Your task to perform on an android device: open app "Fetch Rewards" Image 0: 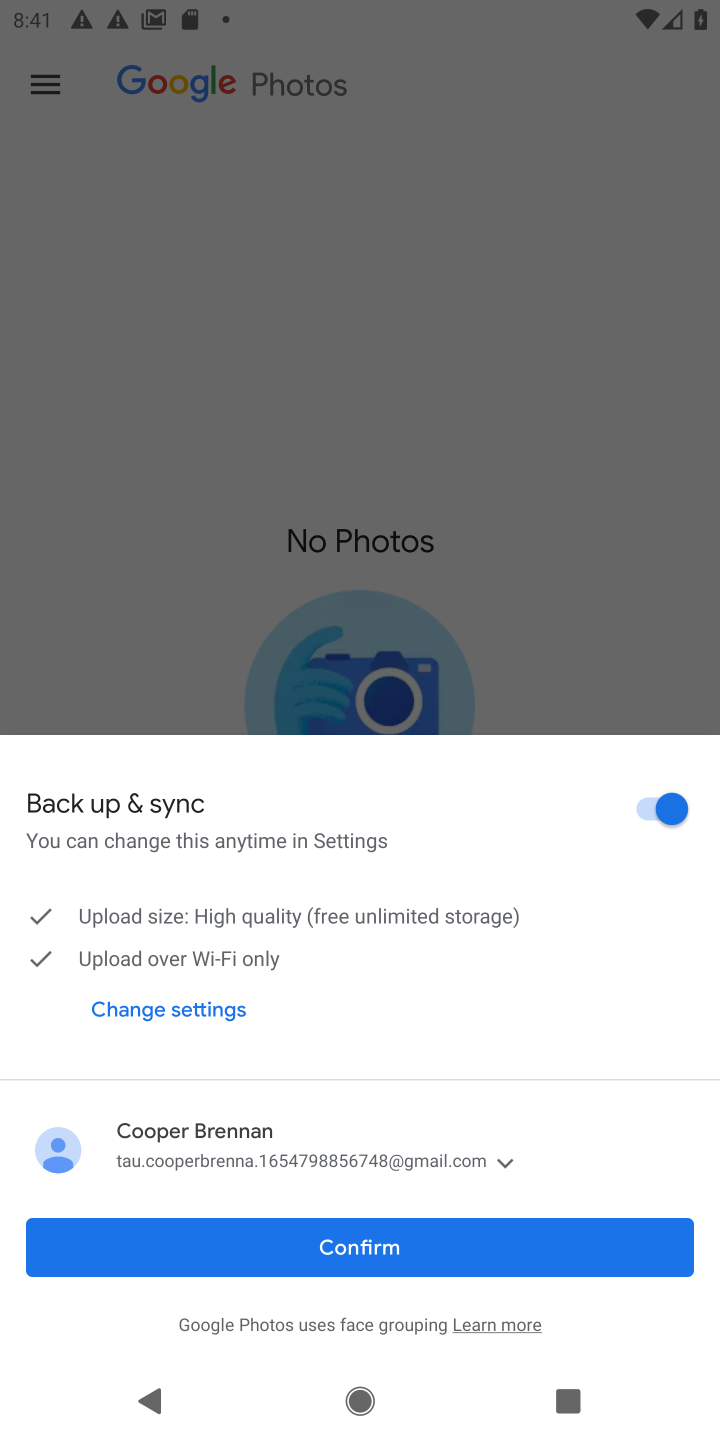
Step 0: press home button
Your task to perform on an android device: open app "Fetch Rewards" Image 1: 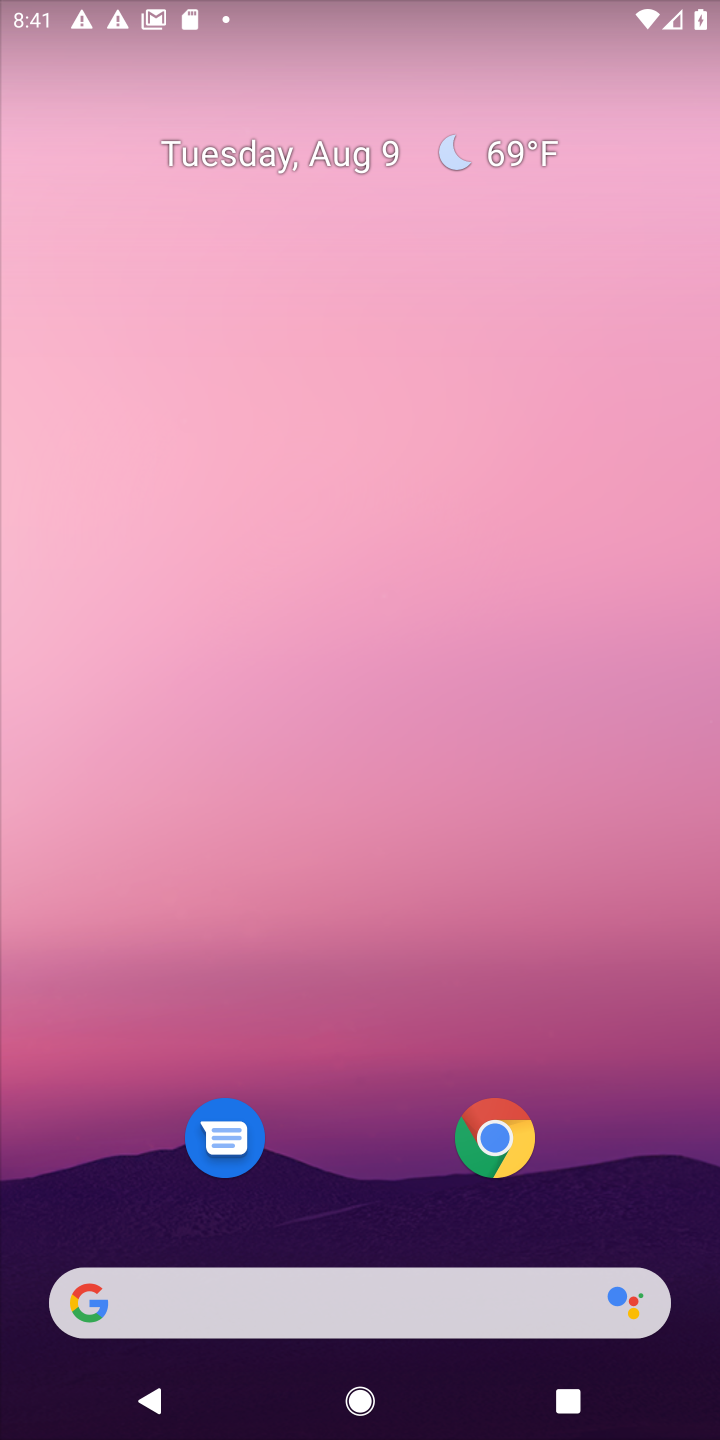
Step 1: drag from (380, 1243) to (538, 83)
Your task to perform on an android device: open app "Fetch Rewards" Image 2: 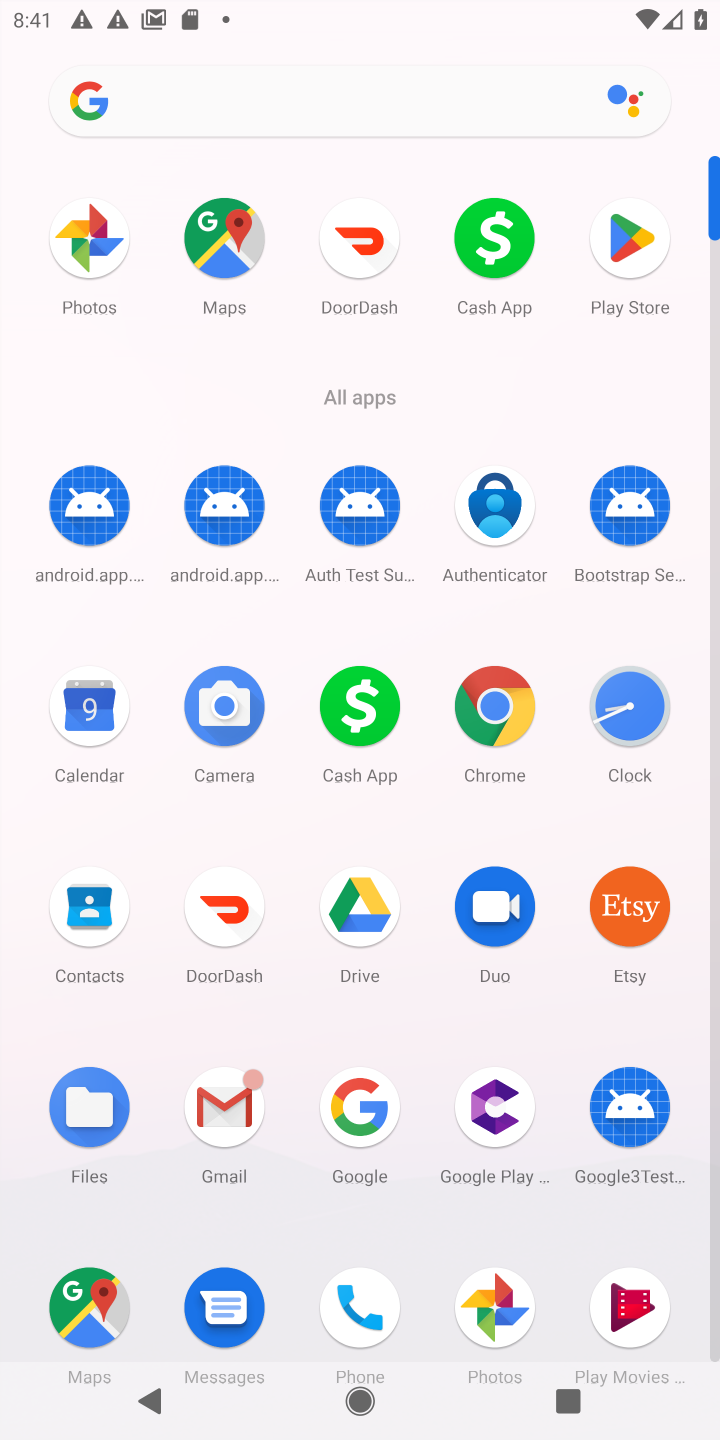
Step 2: click (659, 238)
Your task to perform on an android device: open app "Fetch Rewards" Image 3: 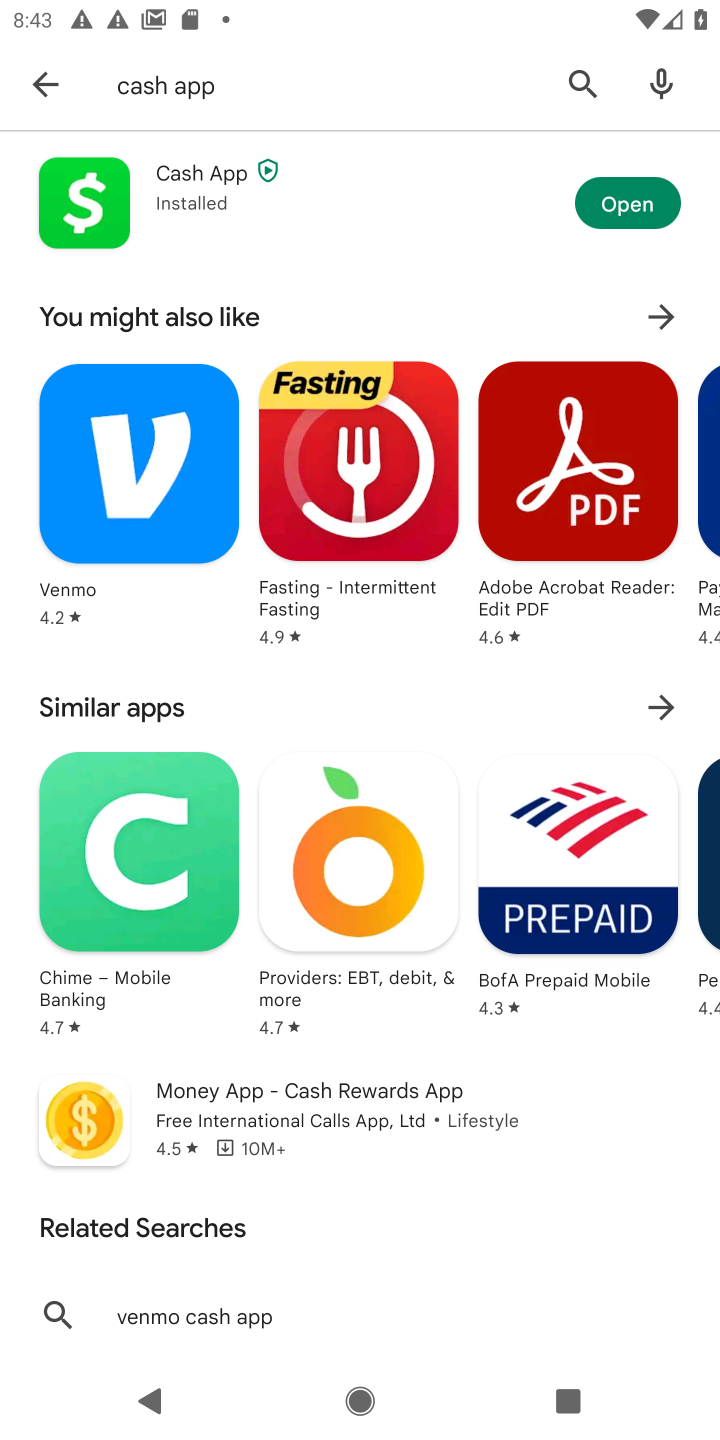
Step 3: click (608, 101)
Your task to perform on an android device: open app "Fetch Rewards" Image 4: 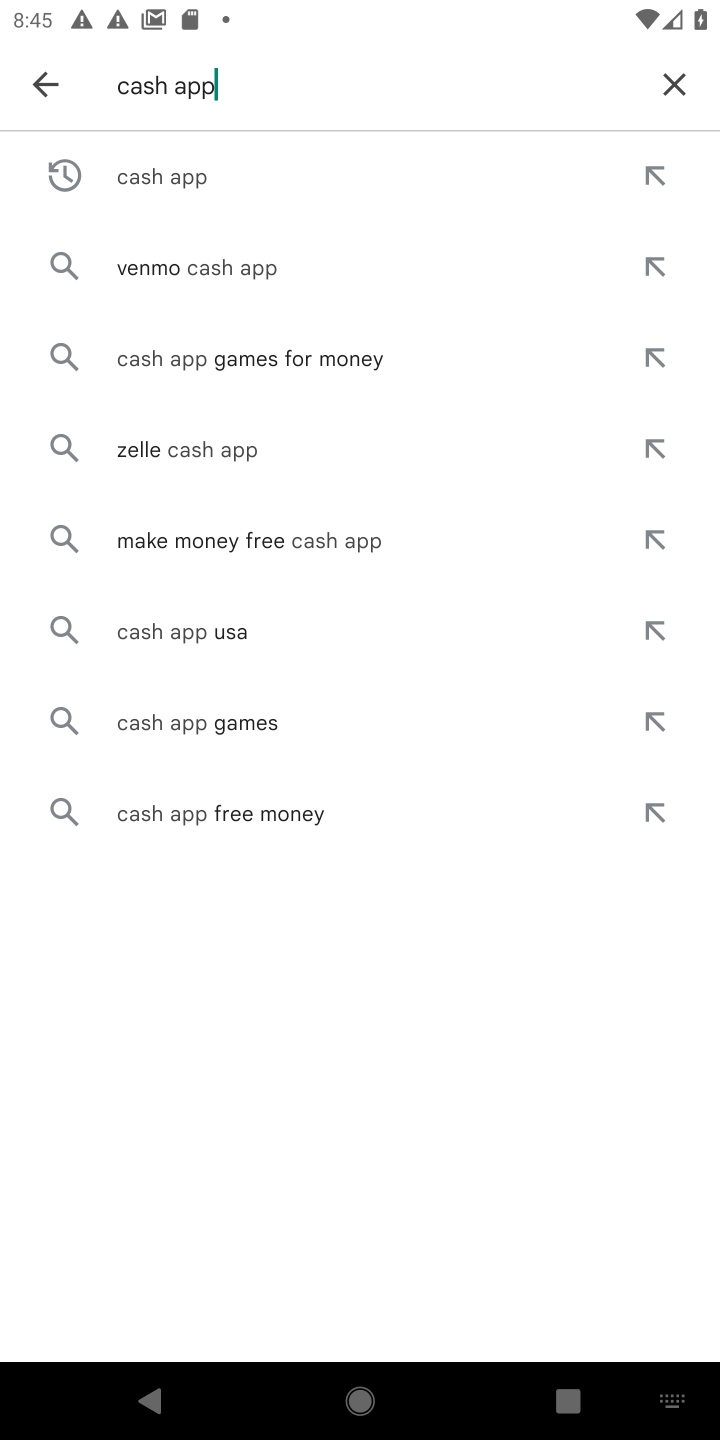
Step 4: task complete